Your task to perform on an android device: Clear the cart on newegg. Search for alienware area 51 on newegg, select the first entry, add it to the cart, then select checkout. Image 0: 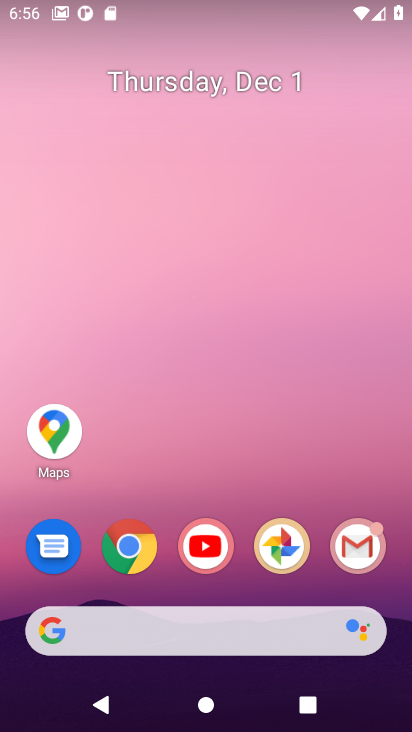
Step 0: click (127, 550)
Your task to perform on an android device: Clear the cart on newegg. Search for alienware area 51 on newegg, select the first entry, add it to the cart, then select checkout. Image 1: 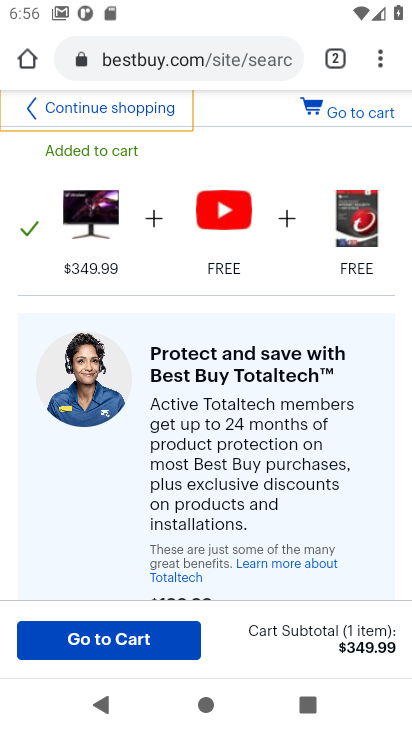
Step 1: click (191, 49)
Your task to perform on an android device: Clear the cart on newegg. Search for alienware area 51 on newegg, select the first entry, add it to the cart, then select checkout. Image 2: 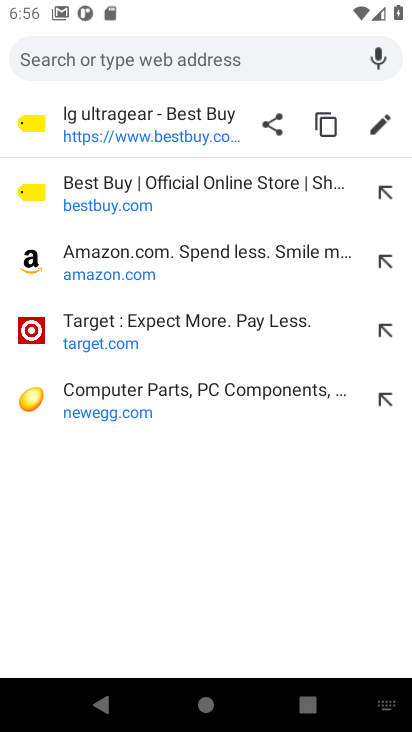
Step 2: click (84, 400)
Your task to perform on an android device: Clear the cart on newegg. Search for alienware area 51 on newegg, select the first entry, add it to the cart, then select checkout. Image 3: 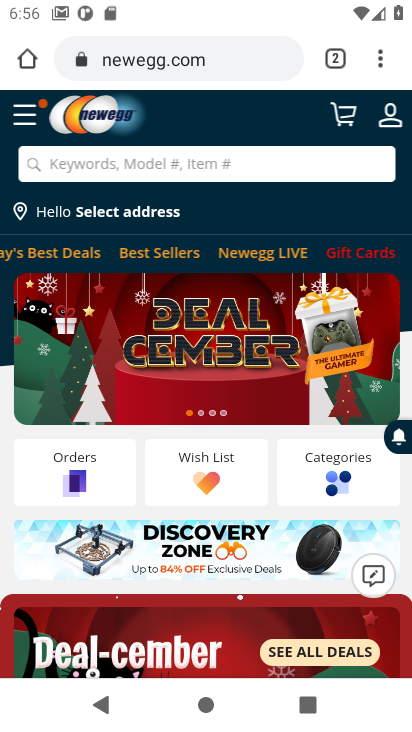
Step 3: click (341, 120)
Your task to perform on an android device: Clear the cart on newegg. Search for alienware area 51 on newegg, select the first entry, add it to the cart, then select checkout. Image 4: 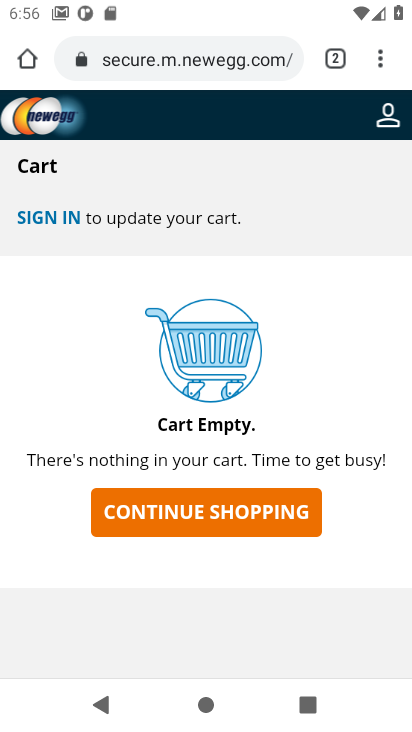
Step 4: click (172, 515)
Your task to perform on an android device: Clear the cart on newegg. Search for alienware area 51 on newegg, select the first entry, add it to the cart, then select checkout. Image 5: 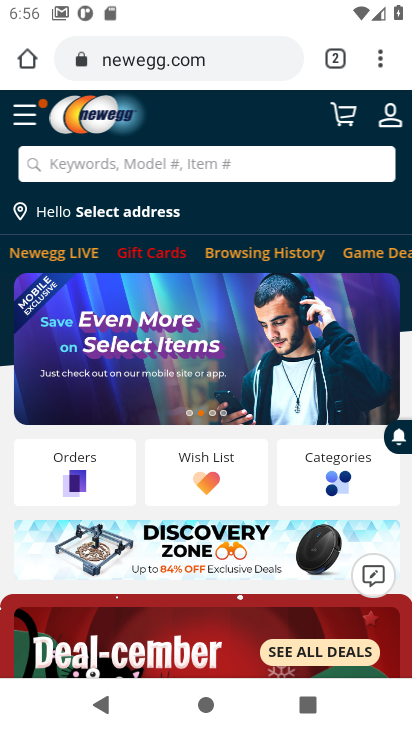
Step 5: click (112, 174)
Your task to perform on an android device: Clear the cart on newegg. Search for alienware area 51 on newegg, select the first entry, add it to the cart, then select checkout. Image 6: 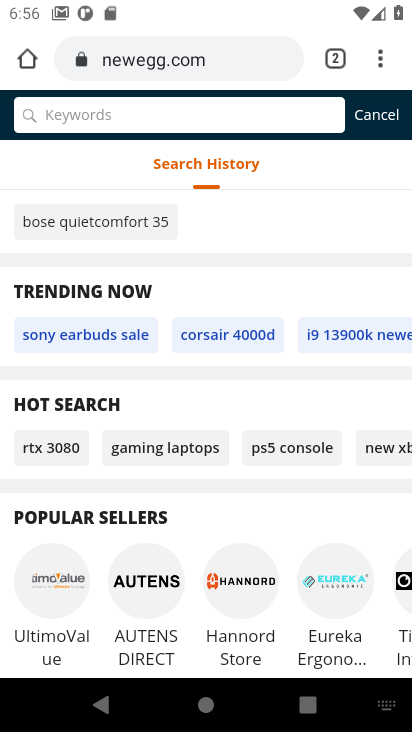
Step 6: type " alienware area 51"
Your task to perform on an android device: Clear the cart on newegg. Search for alienware area 51 on newegg, select the first entry, add it to the cart, then select checkout. Image 7: 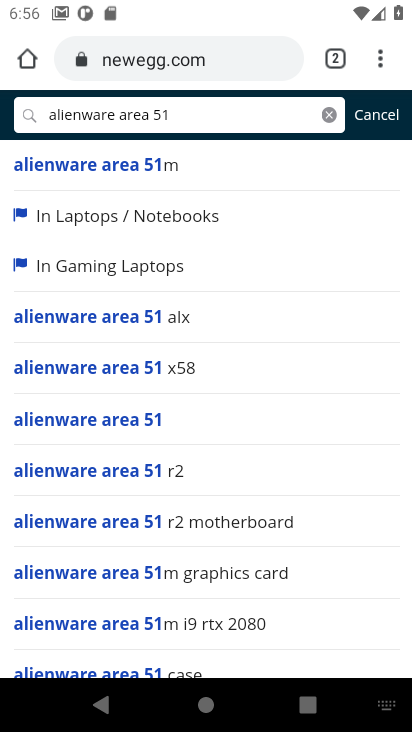
Step 7: click (132, 417)
Your task to perform on an android device: Clear the cart on newegg. Search for alienware area 51 on newegg, select the first entry, add it to the cart, then select checkout. Image 8: 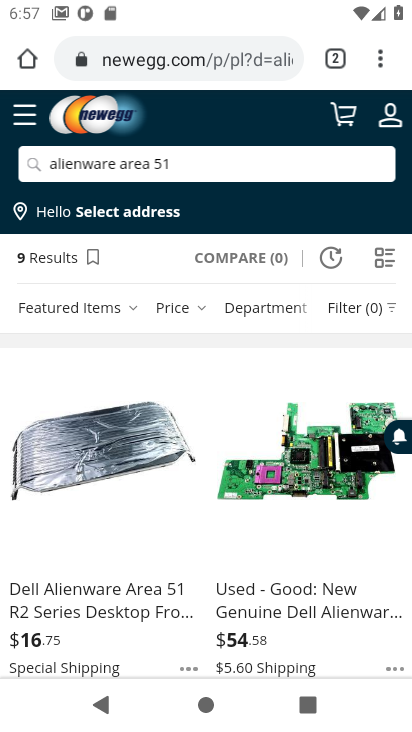
Step 8: click (112, 464)
Your task to perform on an android device: Clear the cart on newegg. Search for alienware area 51 on newegg, select the first entry, add it to the cart, then select checkout. Image 9: 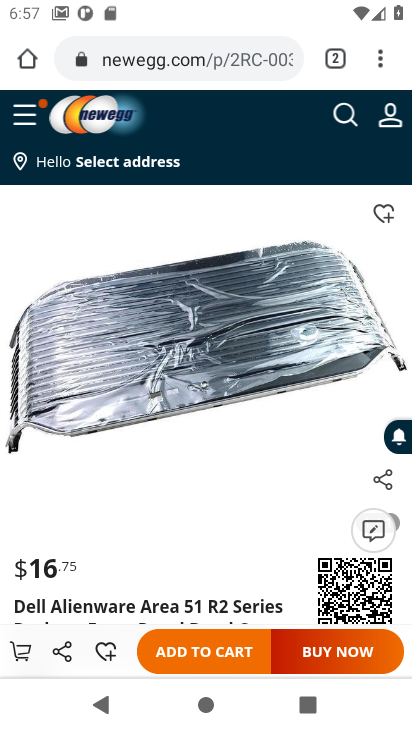
Step 9: click (193, 640)
Your task to perform on an android device: Clear the cart on newegg. Search for alienware area 51 on newegg, select the first entry, add it to the cart, then select checkout. Image 10: 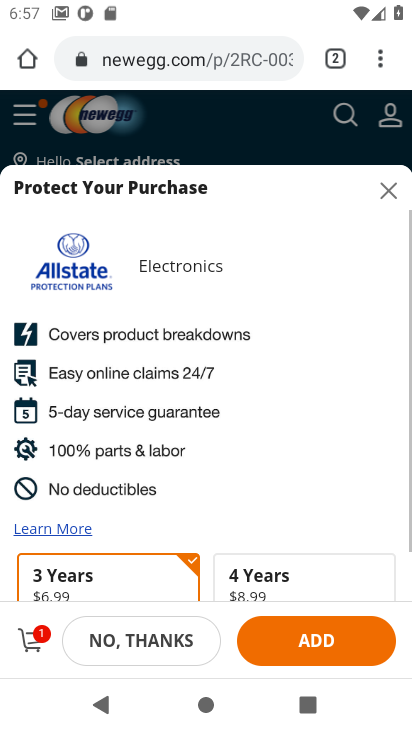
Step 10: click (27, 645)
Your task to perform on an android device: Clear the cart on newegg. Search for alienware area 51 on newegg, select the first entry, add it to the cart, then select checkout. Image 11: 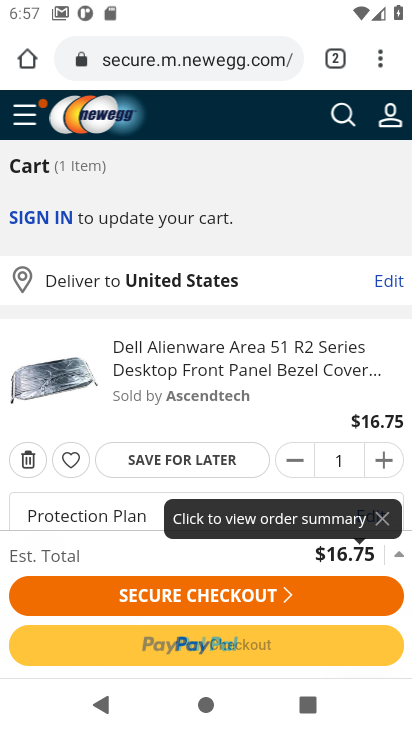
Step 11: click (188, 597)
Your task to perform on an android device: Clear the cart on newegg. Search for alienware area 51 on newegg, select the first entry, add it to the cart, then select checkout. Image 12: 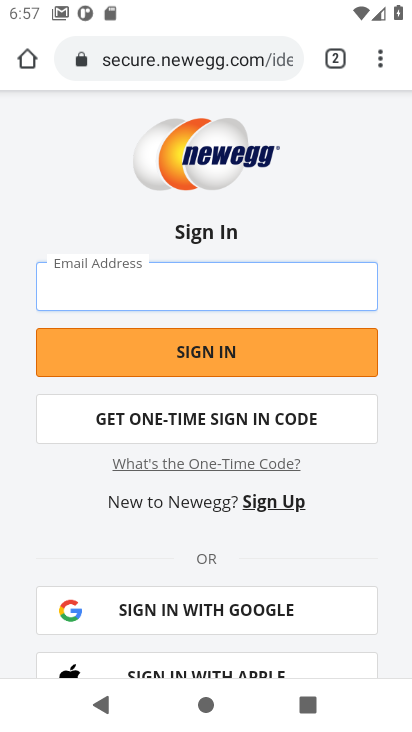
Step 12: task complete